Your task to perform on an android device: Open the web browser Image 0: 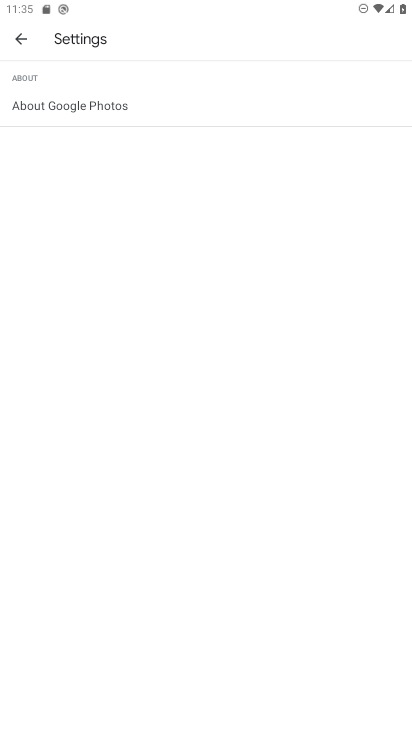
Step 0: press home button
Your task to perform on an android device: Open the web browser Image 1: 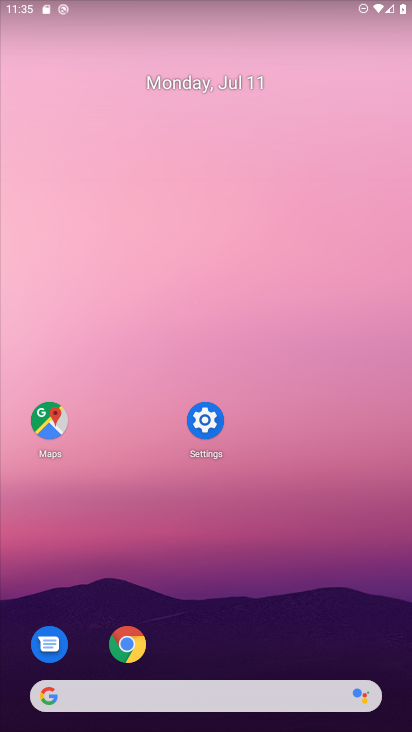
Step 1: click (137, 641)
Your task to perform on an android device: Open the web browser Image 2: 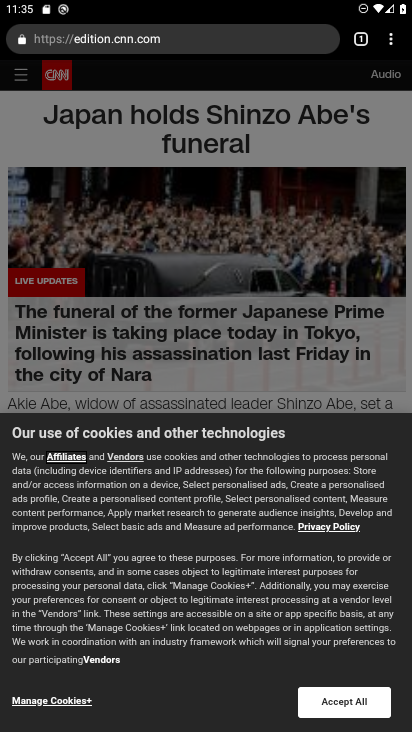
Step 2: task complete